Your task to perform on an android device: Open the stopwatch Image 0: 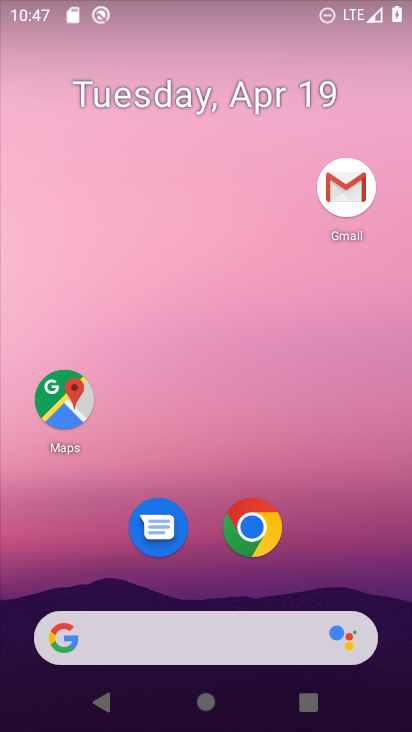
Step 0: click (303, 118)
Your task to perform on an android device: Open the stopwatch Image 1: 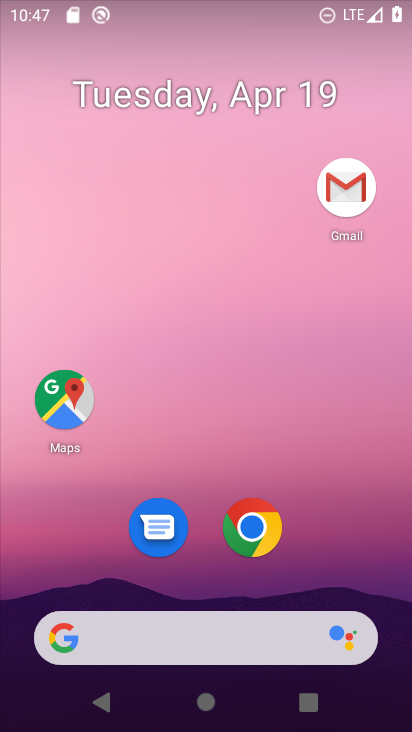
Step 1: drag from (358, 537) to (289, 164)
Your task to perform on an android device: Open the stopwatch Image 2: 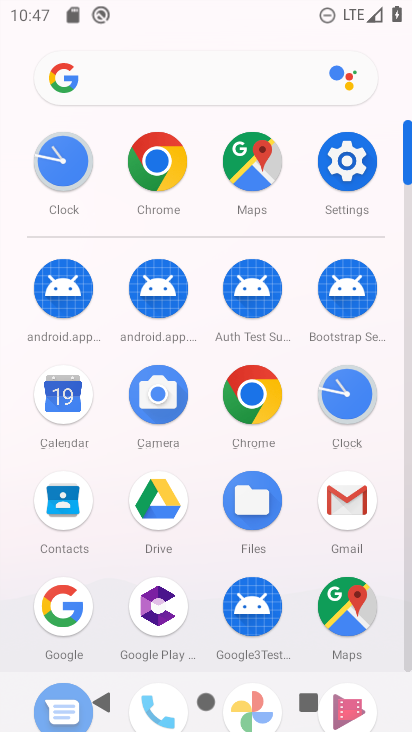
Step 2: click (343, 403)
Your task to perform on an android device: Open the stopwatch Image 3: 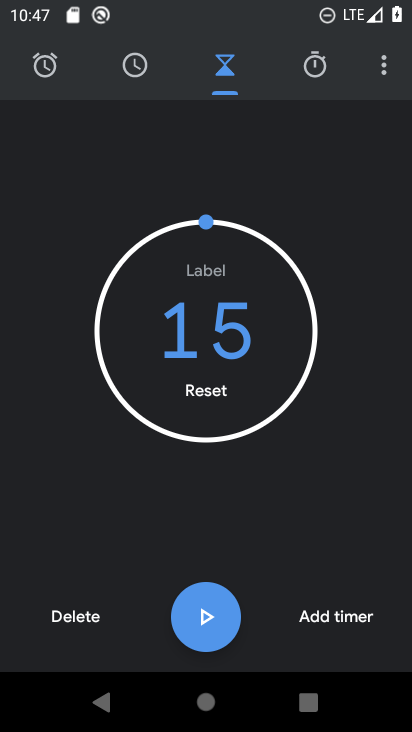
Step 3: click (308, 56)
Your task to perform on an android device: Open the stopwatch Image 4: 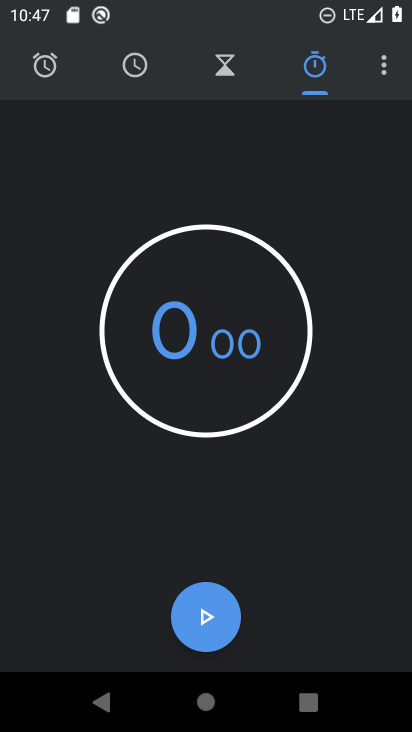
Step 4: click (206, 644)
Your task to perform on an android device: Open the stopwatch Image 5: 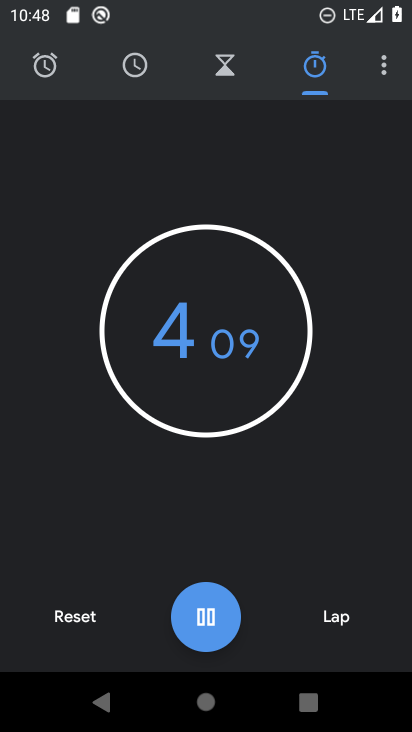
Step 5: click (208, 616)
Your task to perform on an android device: Open the stopwatch Image 6: 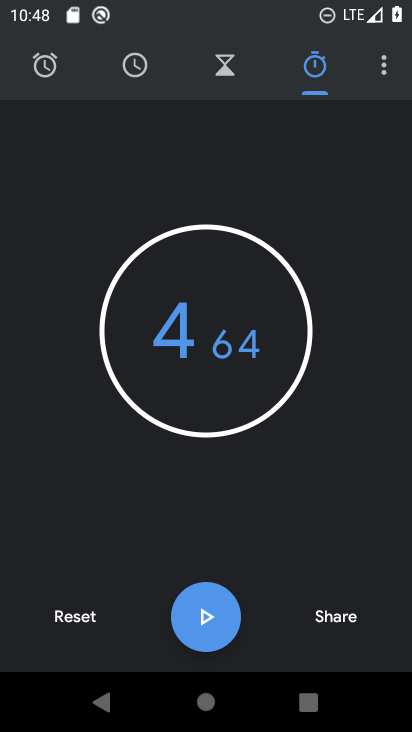
Step 6: task complete